Your task to perform on an android device: turn on translation in the chrome app Image 0: 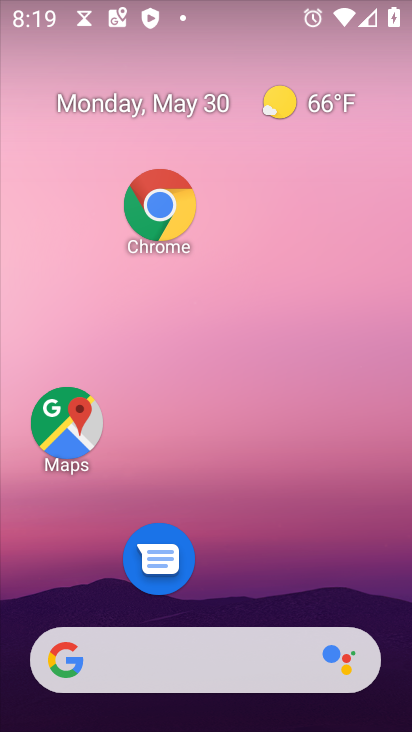
Step 0: drag from (297, 673) to (264, 174)
Your task to perform on an android device: turn on translation in the chrome app Image 1: 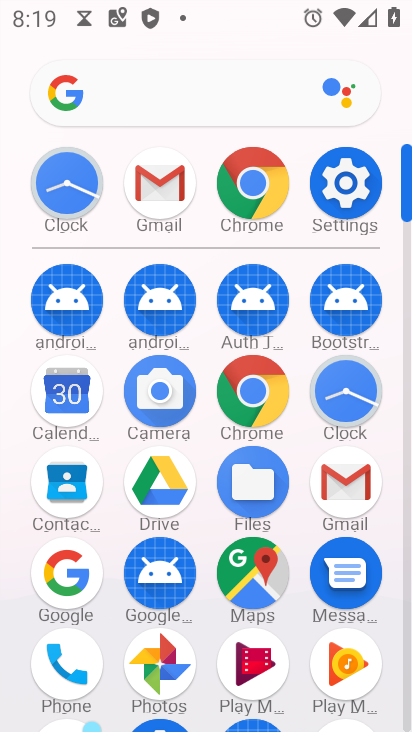
Step 1: click (247, 184)
Your task to perform on an android device: turn on translation in the chrome app Image 2: 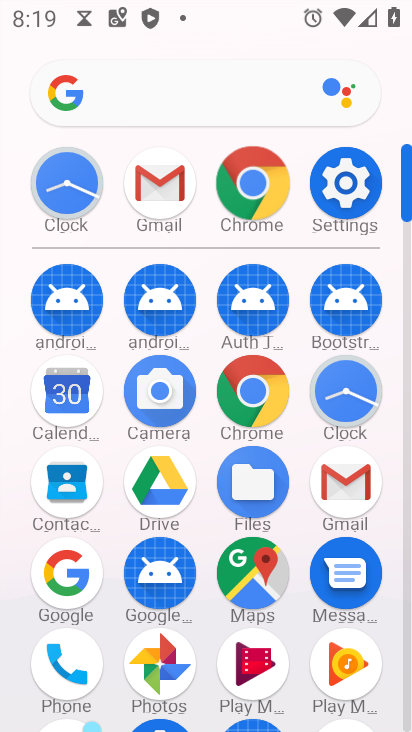
Step 2: click (247, 184)
Your task to perform on an android device: turn on translation in the chrome app Image 3: 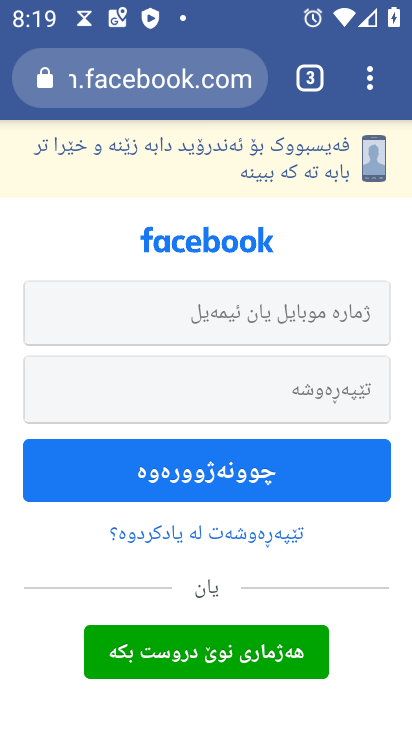
Step 3: press back button
Your task to perform on an android device: turn on translation in the chrome app Image 4: 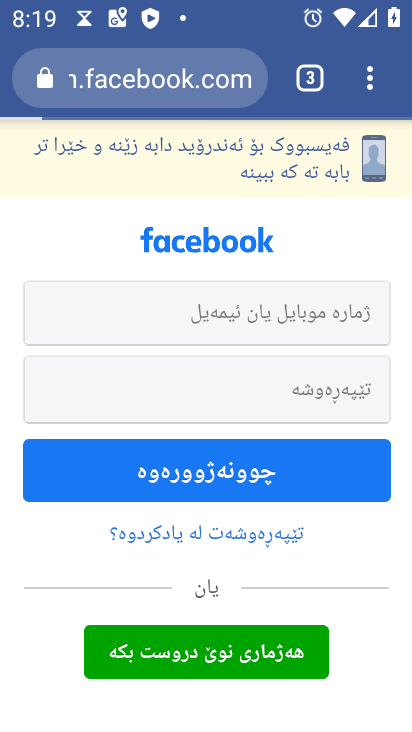
Step 4: press back button
Your task to perform on an android device: turn on translation in the chrome app Image 5: 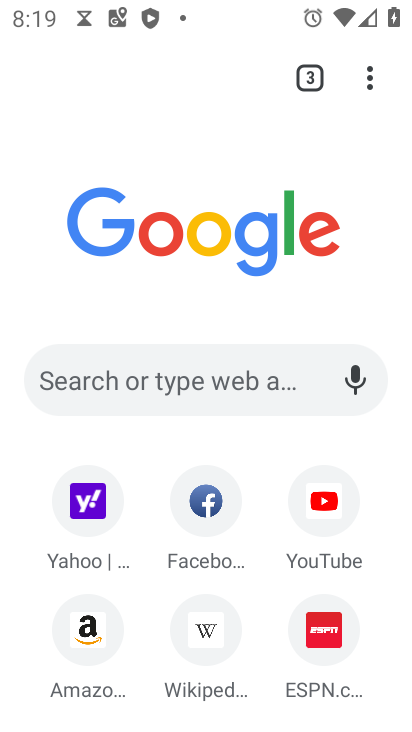
Step 5: drag from (364, 87) to (82, 655)
Your task to perform on an android device: turn on translation in the chrome app Image 6: 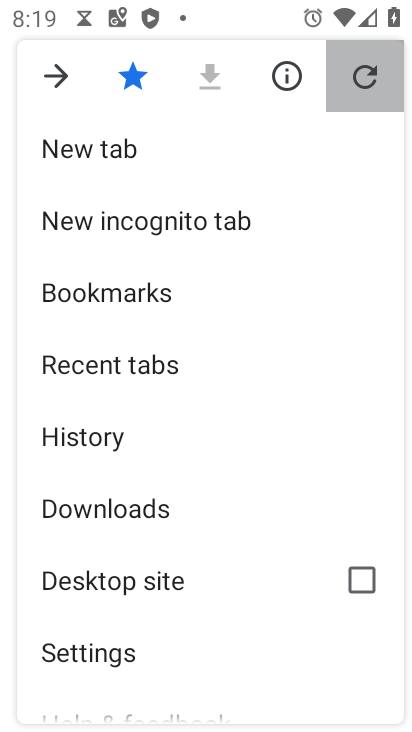
Step 6: click (81, 658)
Your task to perform on an android device: turn on translation in the chrome app Image 7: 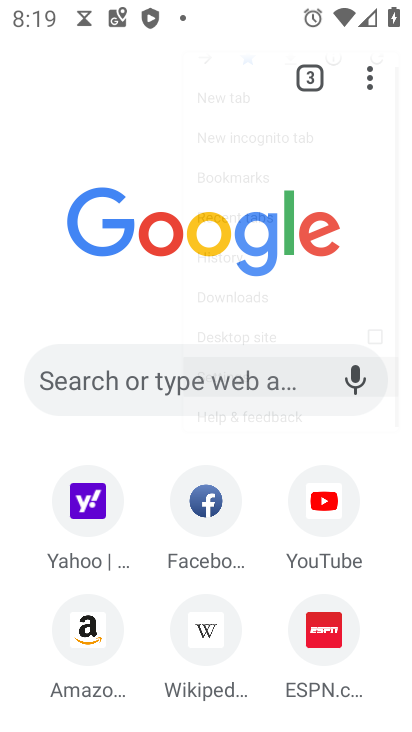
Step 7: click (78, 660)
Your task to perform on an android device: turn on translation in the chrome app Image 8: 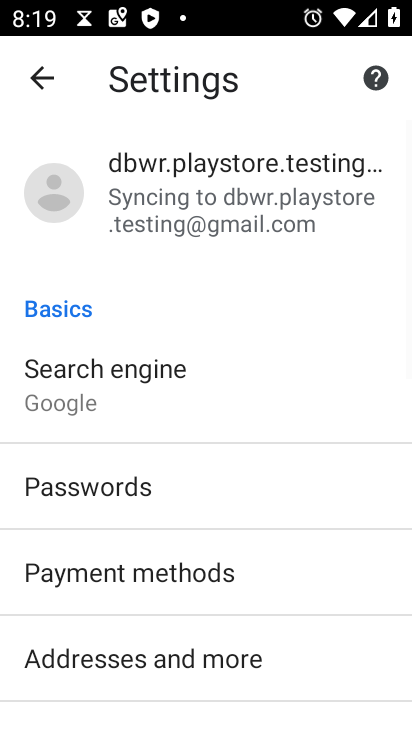
Step 8: drag from (184, 497) to (180, 144)
Your task to perform on an android device: turn on translation in the chrome app Image 9: 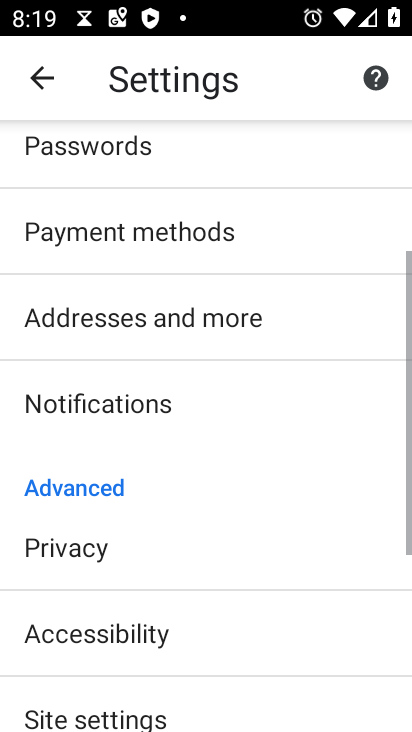
Step 9: drag from (233, 559) to (233, 129)
Your task to perform on an android device: turn on translation in the chrome app Image 10: 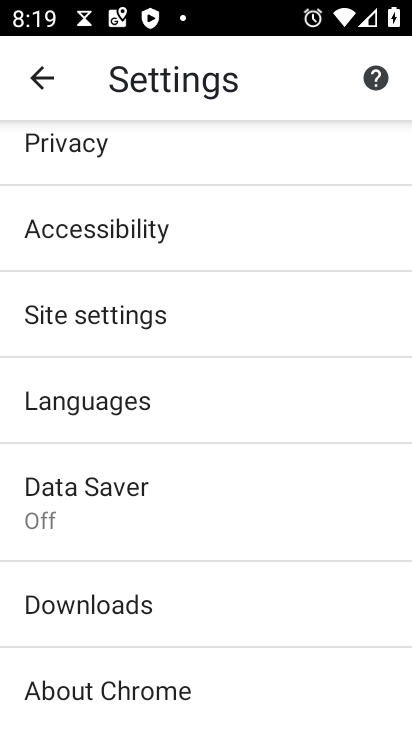
Step 10: click (99, 397)
Your task to perform on an android device: turn on translation in the chrome app Image 11: 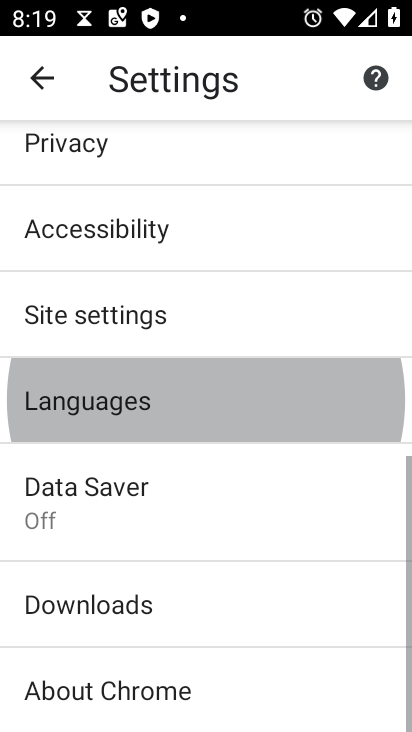
Step 11: click (100, 394)
Your task to perform on an android device: turn on translation in the chrome app Image 12: 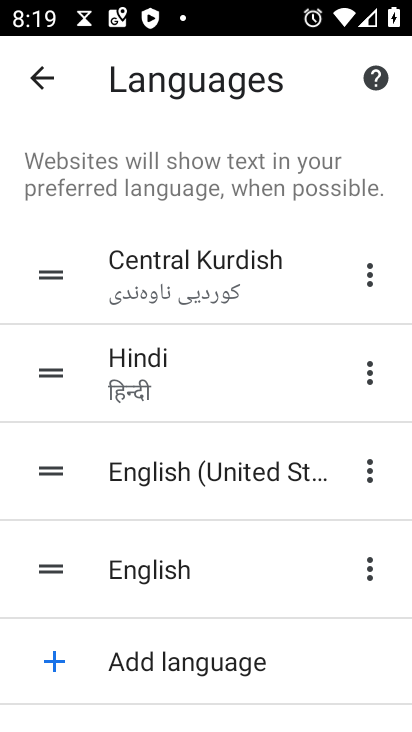
Step 12: click (43, 81)
Your task to perform on an android device: turn on translation in the chrome app Image 13: 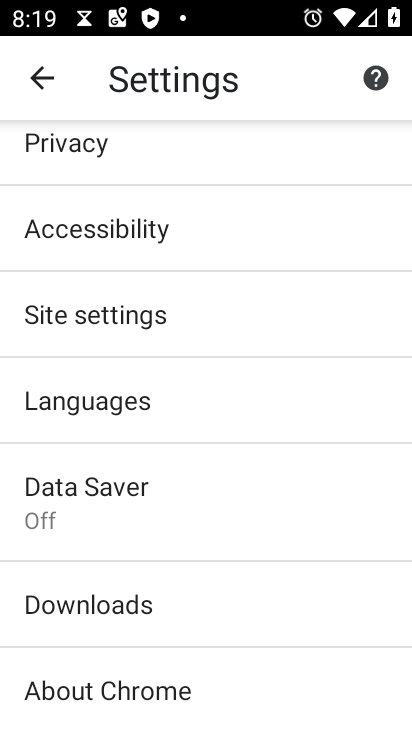
Step 13: click (93, 400)
Your task to perform on an android device: turn on translation in the chrome app Image 14: 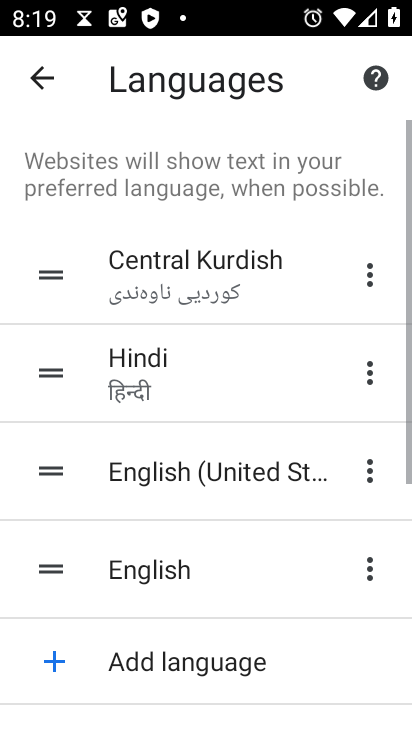
Step 14: drag from (166, 584) to (127, 262)
Your task to perform on an android device: turn on translation in the chrome app Image 15: 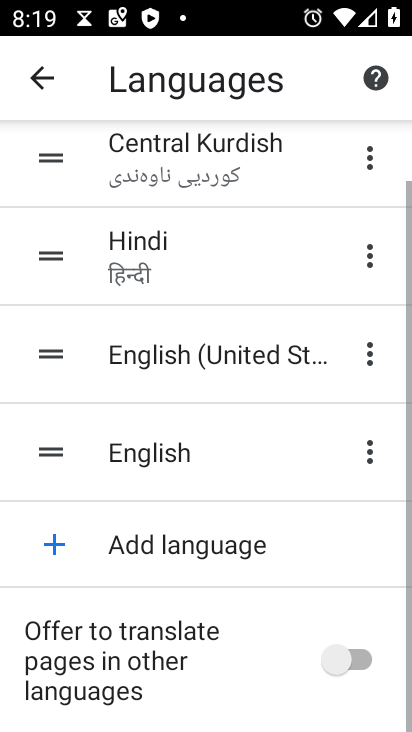
Step 15: drag from (228, 586) to (224, 262)
Your task to perform on an android device: turn on translation in the chrome app Image 16: 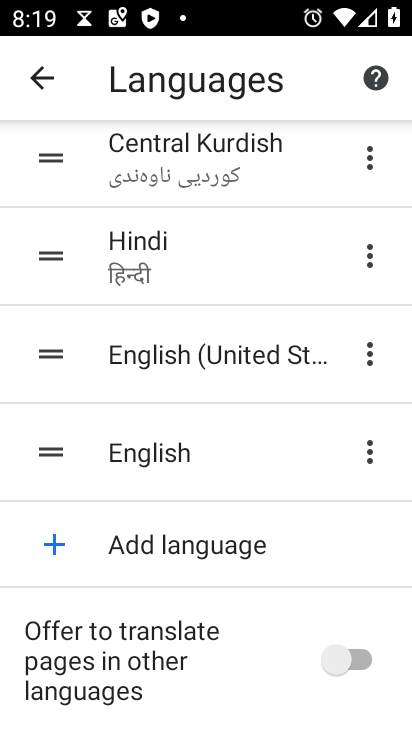
Step 16: click (337, 657)
Your task to perform on an android device: turn on translation in the chrome app Image 17: 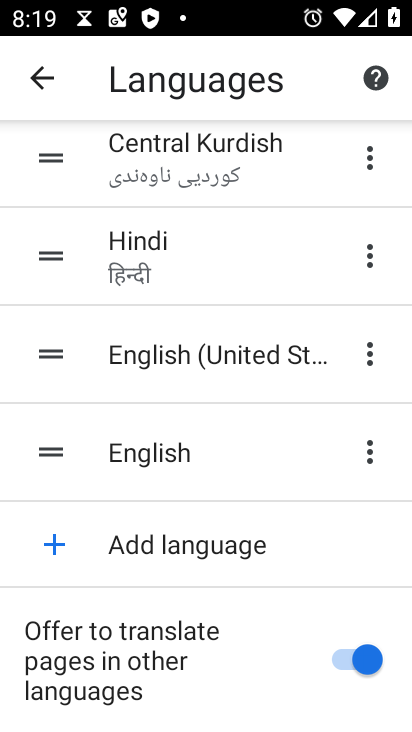
Step 17: task complete